Your task to perform on an android device: see creations saved in the google photos Image 0: 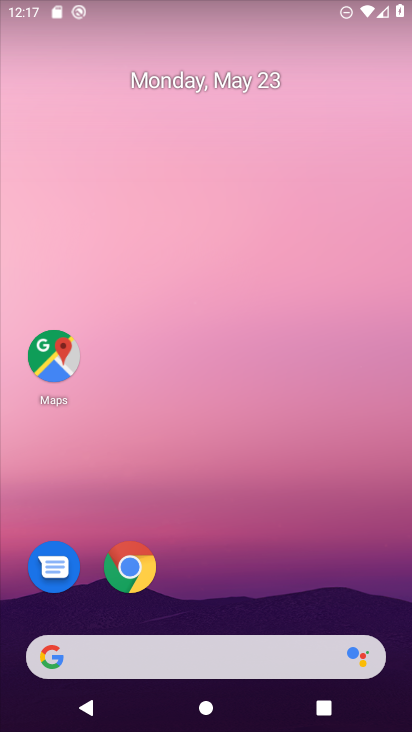
Step 0: drag from (293, 247) to (264, 42)
Your task to perform on an android device: see creations saved in the google photos Image 1: 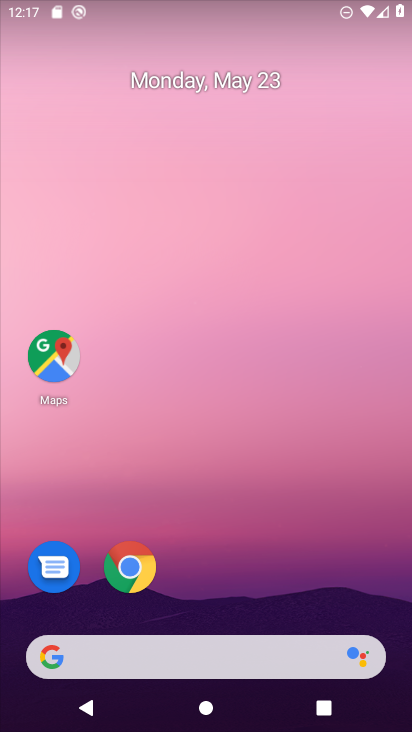
Step 1: drag from (178, 621) to (195, 73)
Your task to perform on an android device: see creations saved in the google photos Image 2: 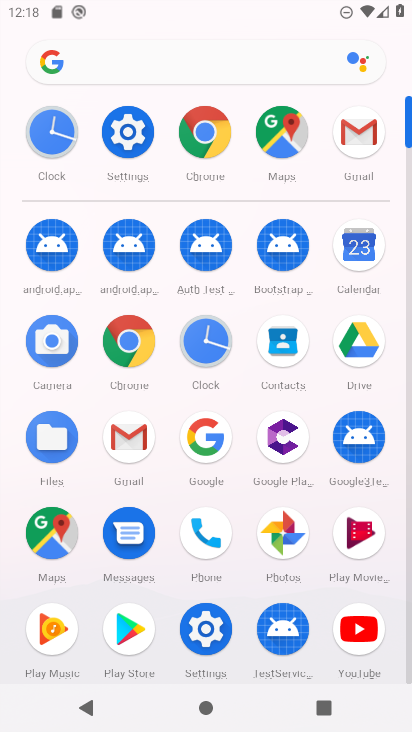
Step 2: click (276, 536)
Your task to perform on an android device: see creations saved in the google photos Image 3: 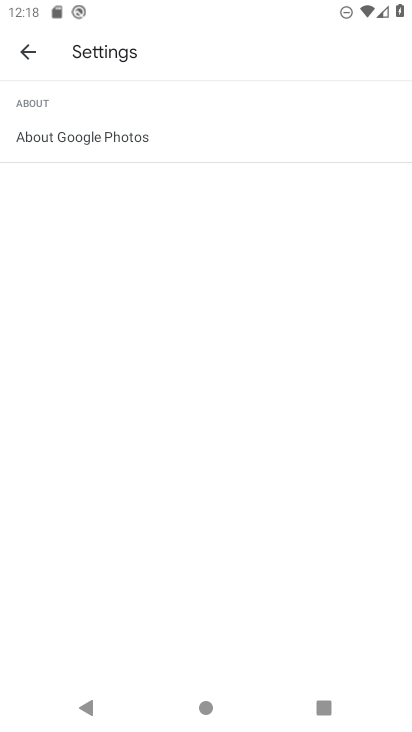
Step 3: click (39, 63)
Your task to perform on an android device: see creations saved in the google photos Image 4: 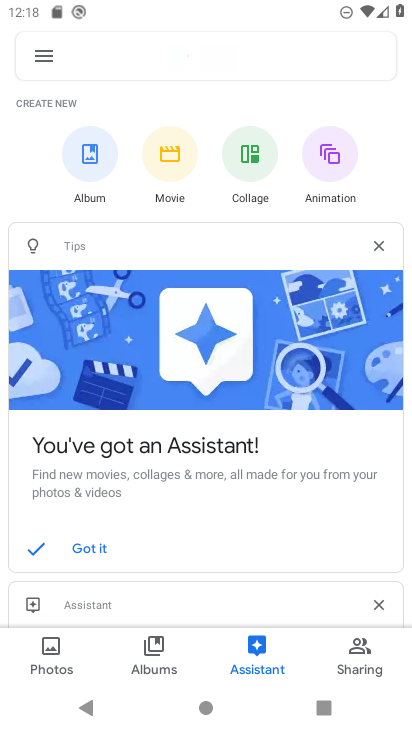
Step 4: click (157, 656)
Your task to perform on an android device: see creations saved in the google photos Image 5: 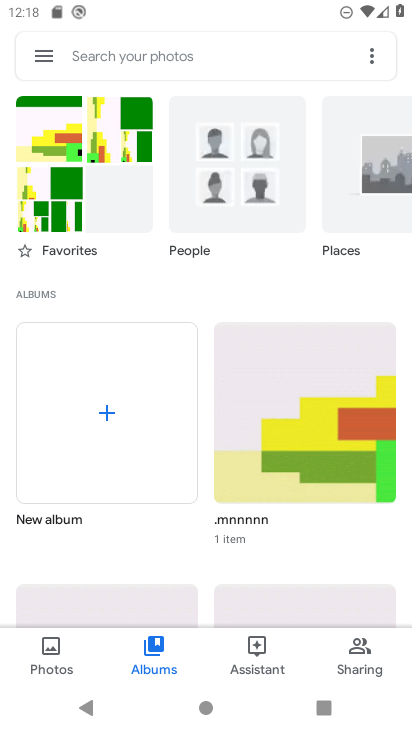
Step 5: click (55, 657)
Your task to perform on an android device: see creations saved in the google photos Image 6: 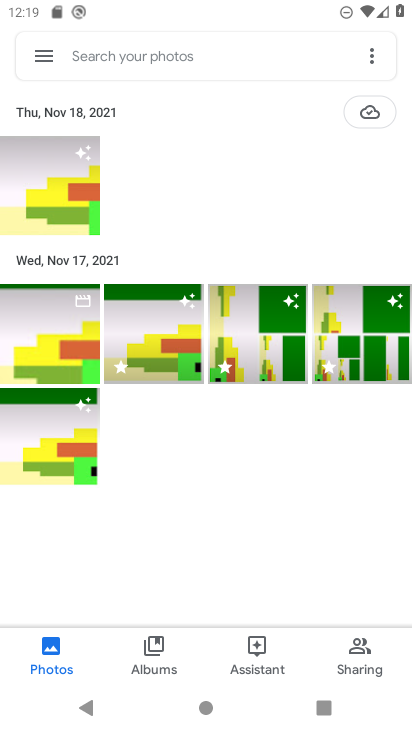
Step 6: click (377, 63)
Your task to perform on an android device: see creations saved in the google photos Image 7: 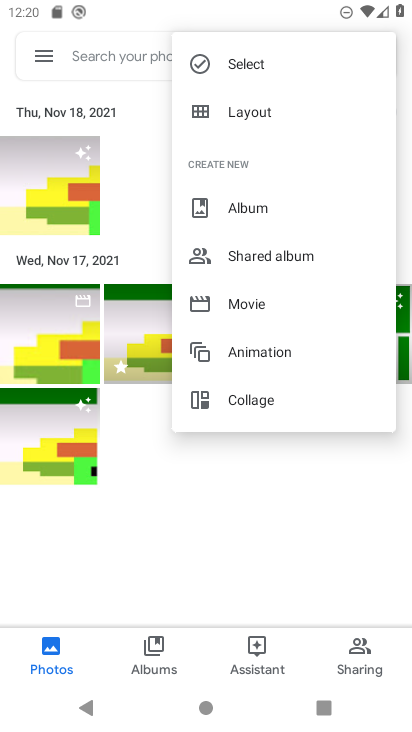
Step 7: task complete